Your task to perform on an android device: Do I have any events this weekend? Image 0: 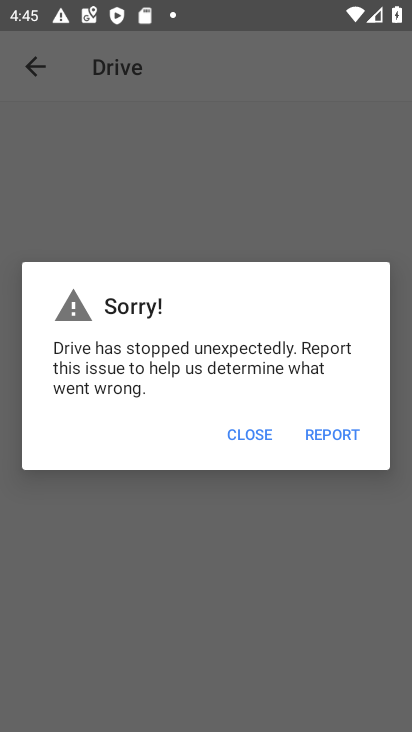
Step 0: press home button
Your task to perform on an android device: Do I have any events this weekend? Image 1: 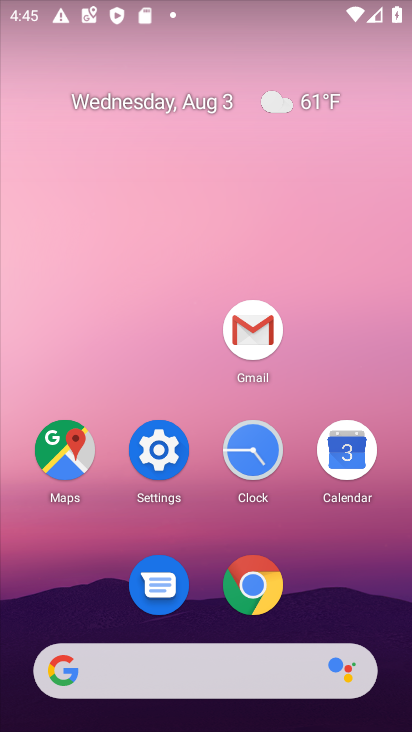
Step 1: click (351, 464)
Your task to perform on an android device: Do I have any events this weekend? Image 2: 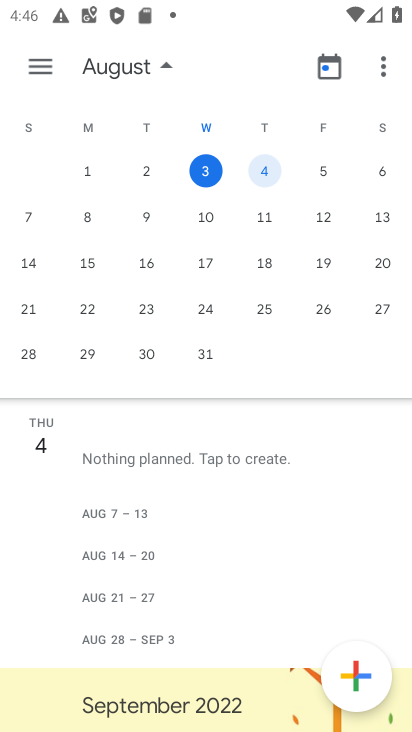
Step 2: click (31, 62)
Your task to perform on an android device: Do I have any events this weekend? Image 3: 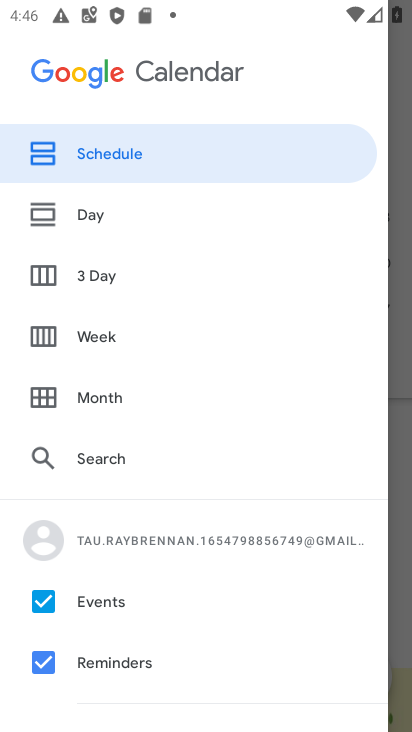
Step 3: click (101, 331)
Your task to perform on an android device: Do I have any events this weekend? Image 4: 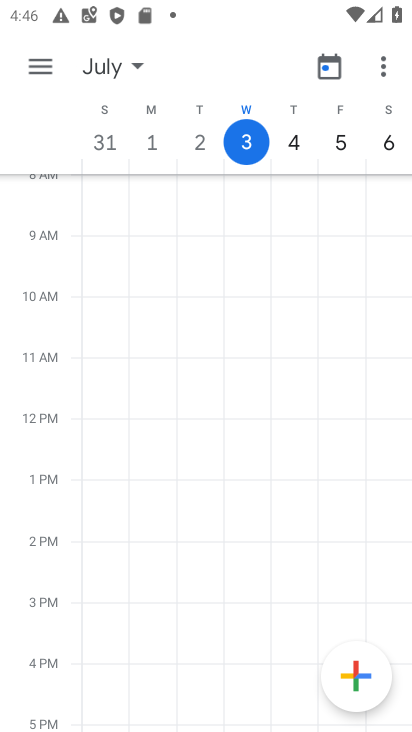
Step 4: click (29, 59)
Your task to perform on an android device: Do I have any events this weekend? Image 5: 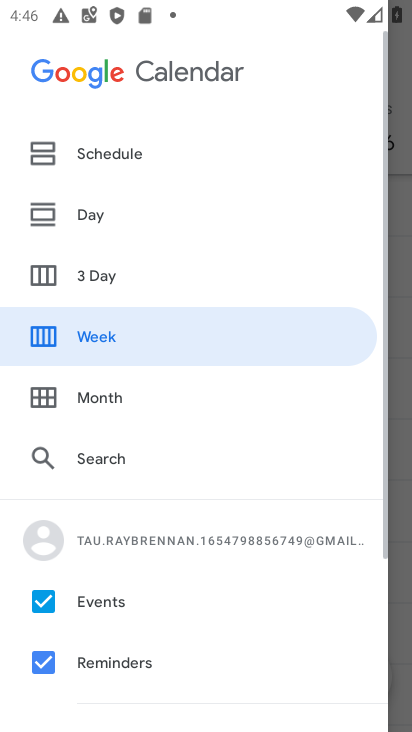
Step 5: click (111, 151)
Your task to perform on an android device: Do I have any events this weekend? Image 6: 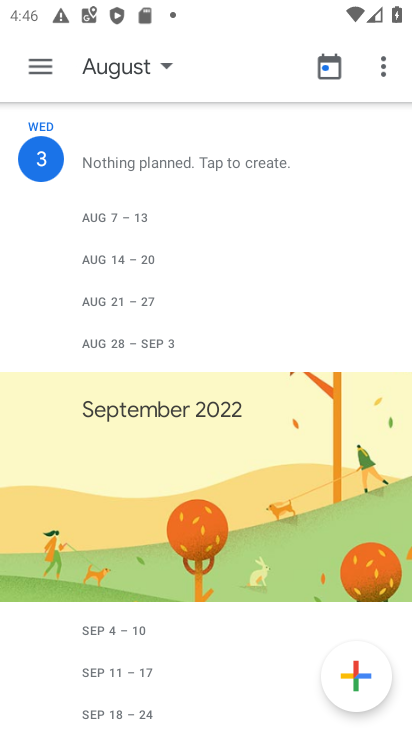
Step 6: task complete